Your task to perform on an android device: turn off wifi Image 0: 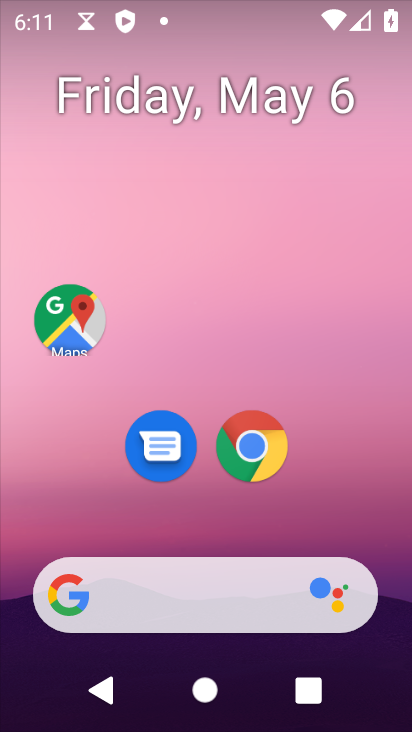
Step 0: drag from (329, 463) to (313, 233)
Your task to perform on an android device: turn off wifi Image 1: 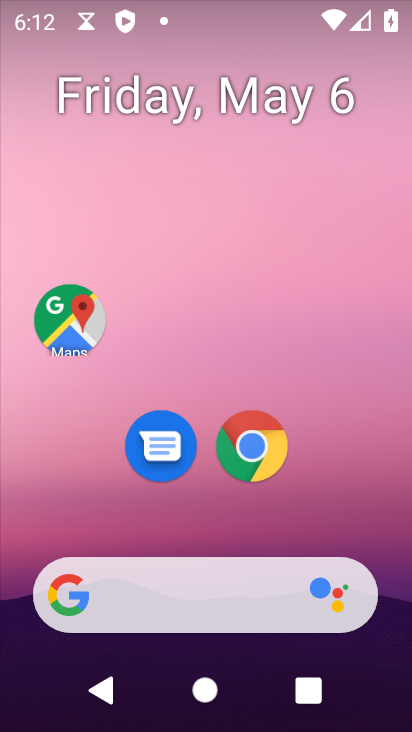
Step 1: drag from (300, 510) to (247, 5)
Your task to perform on an android device: turn off wifi Image 2: 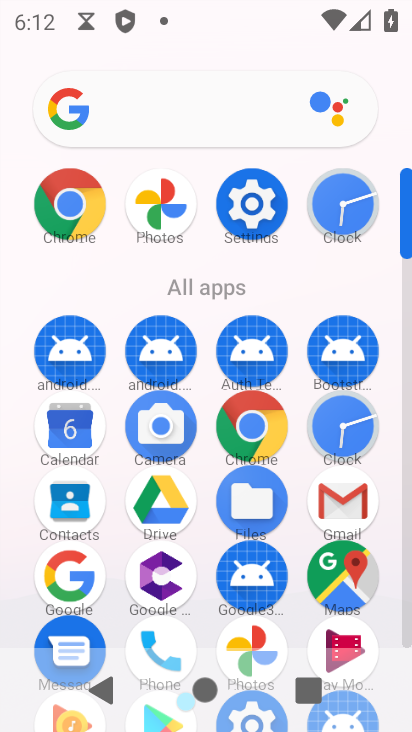
Step 2: click (266, 214)
Your task to perform on an android device: turn off wifi Image 3: 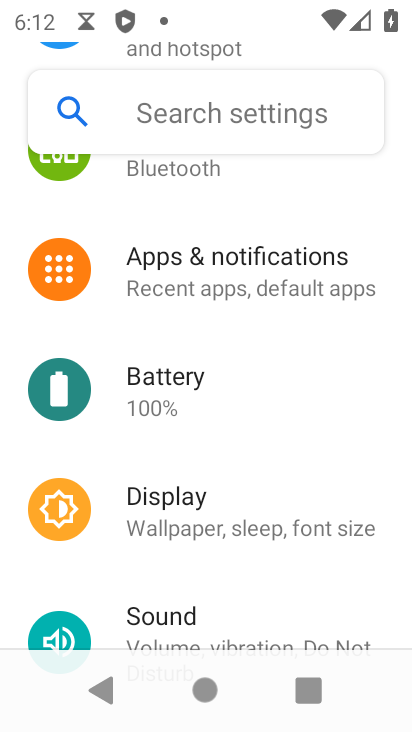
Step 3: drag from (241, 238) to (205, 551)
Your task to perform on an android device: turn off wifi Image 4: 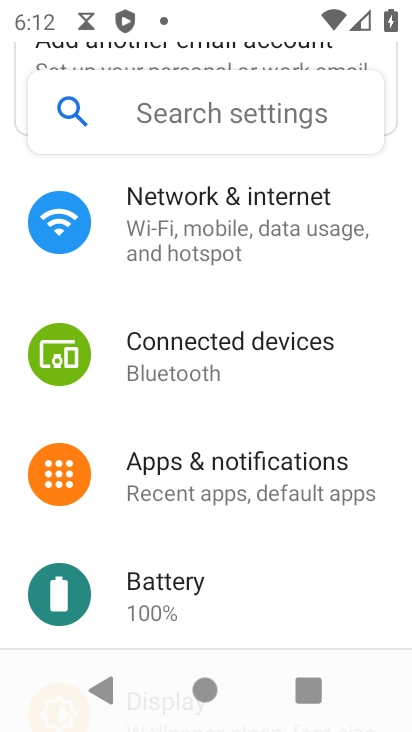
Step 4: click (182, 258)
Your task to perform on an android device: turn off wifi Image 5: 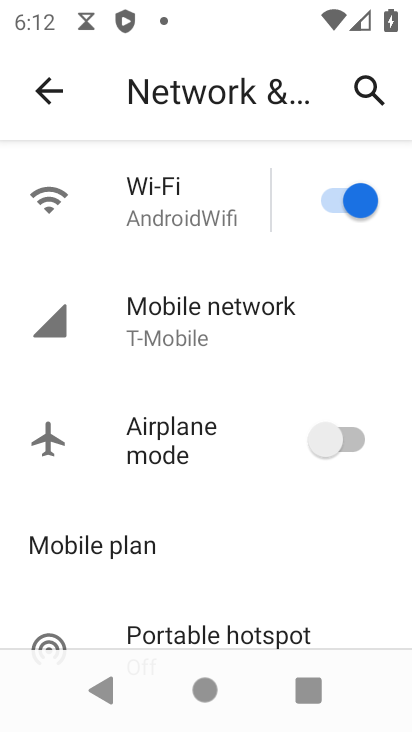
Step 5: click (335, 207)
Your task to perform on an android device: turn off wifi Image 6: 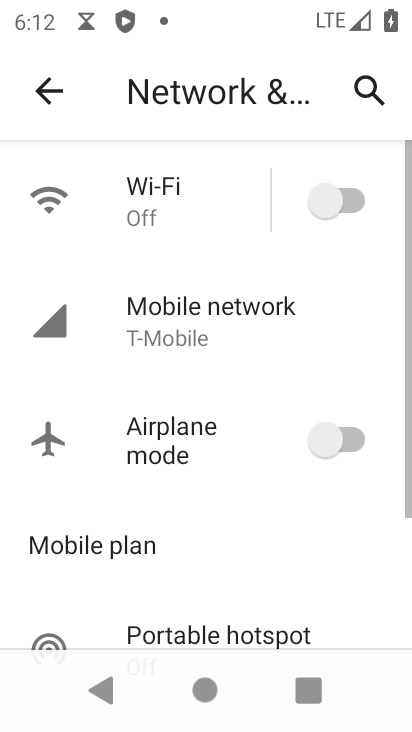
Step 6: task complete